Your task to perform on an android device: turn on priority inbox in the gmail app Image 0: 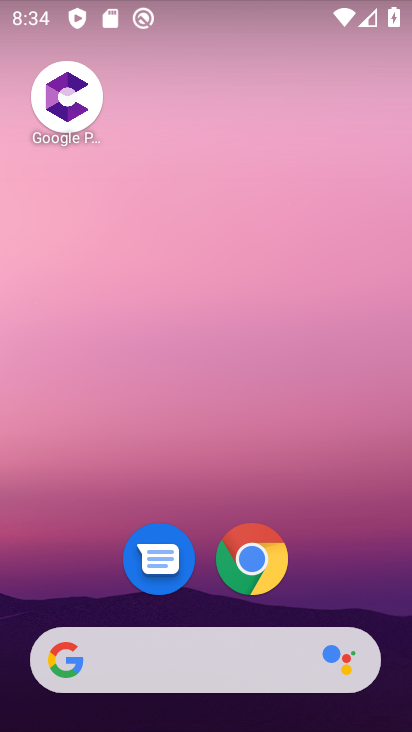
Step 0: drag from (318, 578) to (332, 208)
Your task to perform on an android device: turn on priority inbox in the gmail app Image 1: 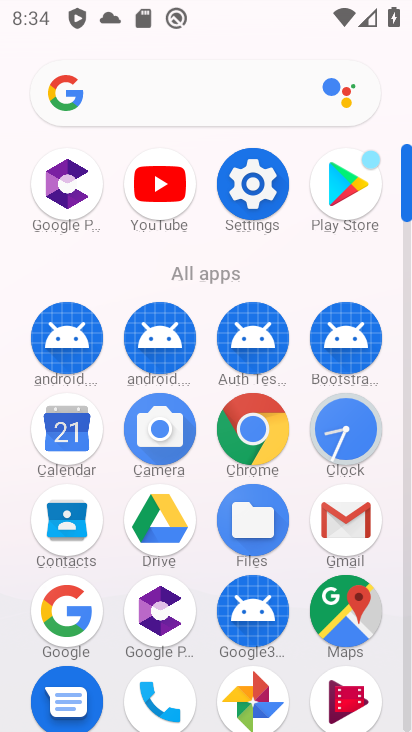
Step 1: click (346, 529)
Your task to perform on an android device: turn on priority inbox in the gmail app Image 2: 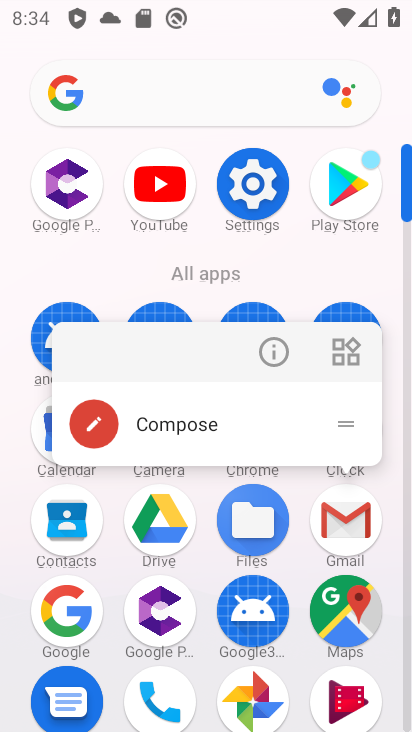
Step 2: click (348, 525)
Your task to perform on an android device: turn on priority inbox in the gmail app Image 3: 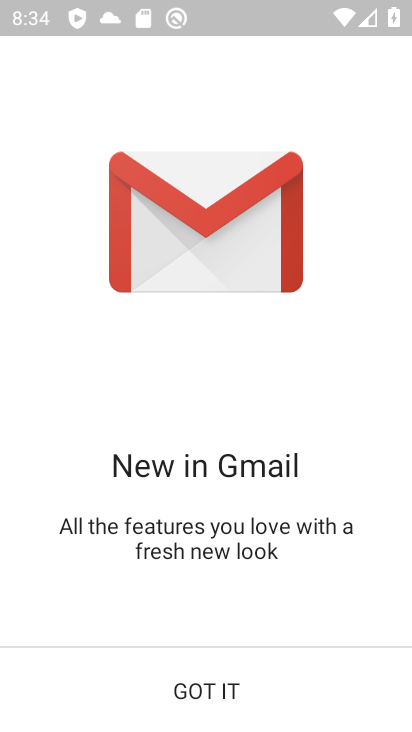
Step 3: click (175, 689)
Your task to perform on an android device: turn on priority inbox in the gmail app Image 4: 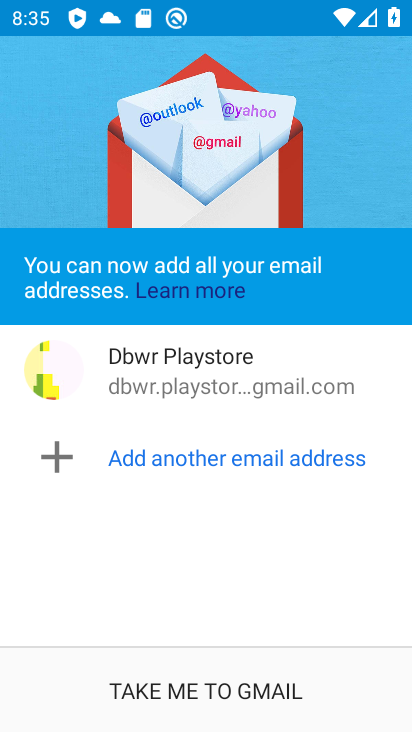
Step 4: click (180, 692)
Your task to perform on an android device: turn on priority inbox in the gmail app Image 5: 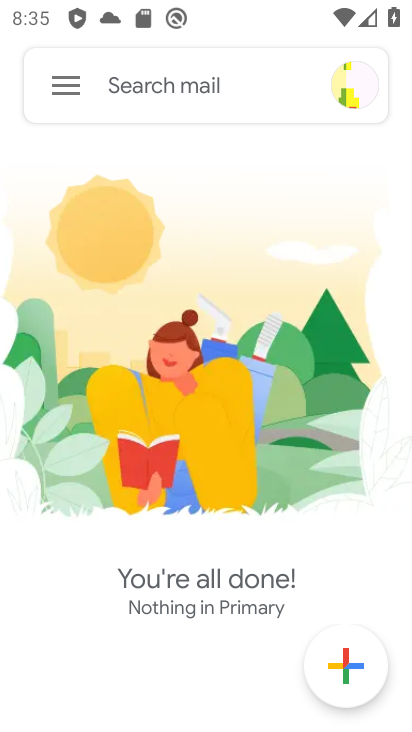
Step 5: click (63, 97)
Your task to perform on an android device: turn on priority inbox in the gmail app Image 6: 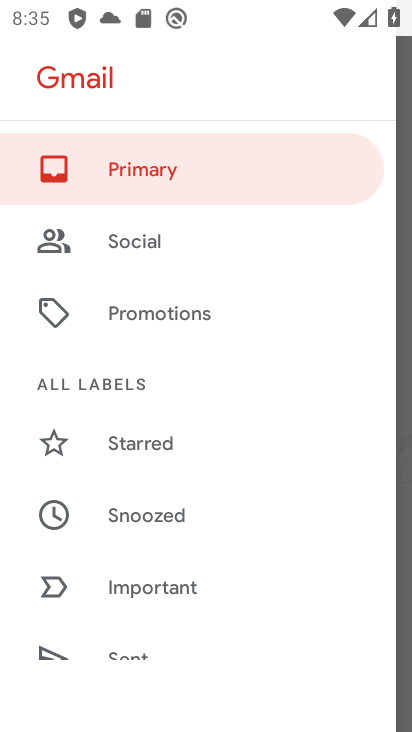
Step 6: drag from (167, 560) to (176, 231)
Your task to perform on an android device: turn on priority inbox in the gmail app Image 7: 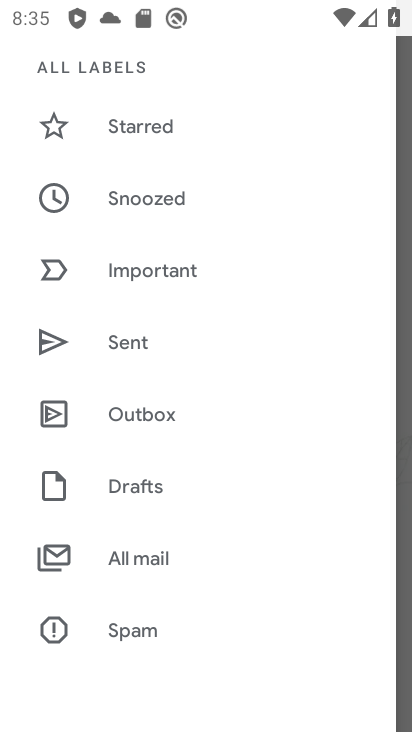
Step 7: drag from (200, 589) to (204, 371)
Your task to perform on an android device: turn on priority inbox in the gmail app Image 8: 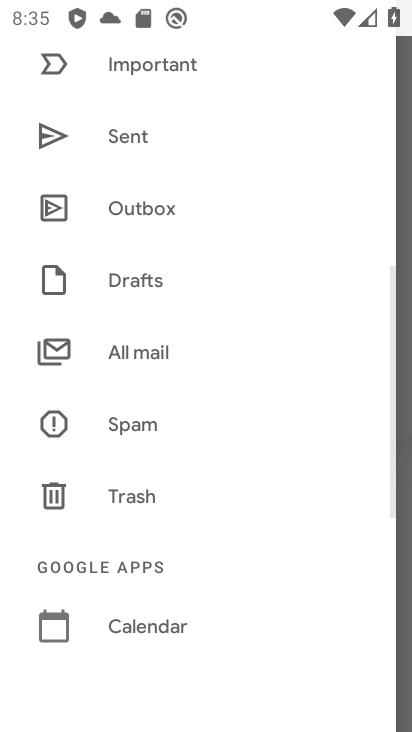
Step 8: drag from (216, 592) to (217, 357)
Your task to perform on an android device: turn on priority inbox in the gmail app Image 9: 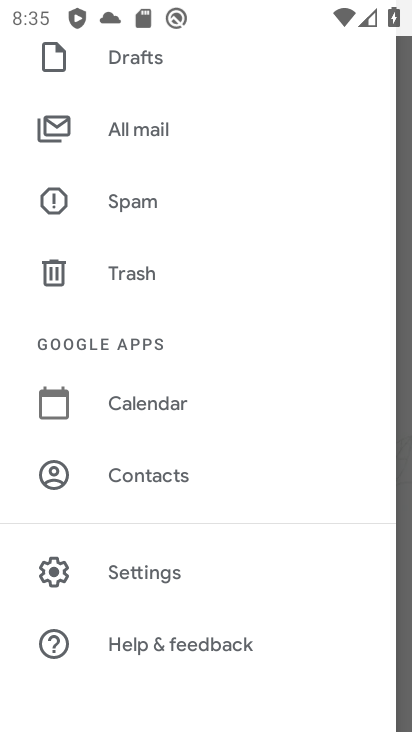
Step 9: click (166, 575)
Your task to perform on an android device: turn on priority inbox in the gmail app Image 10: 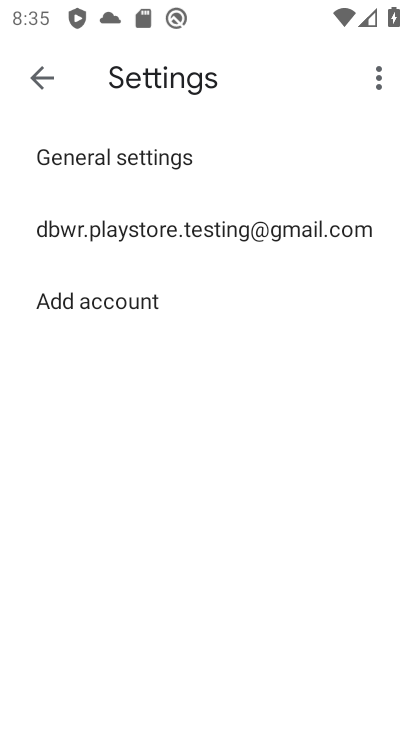
Step 10: click (154, 237)
Your task to perform on an android device: turn on priority inbox in the gmail app Image 11: 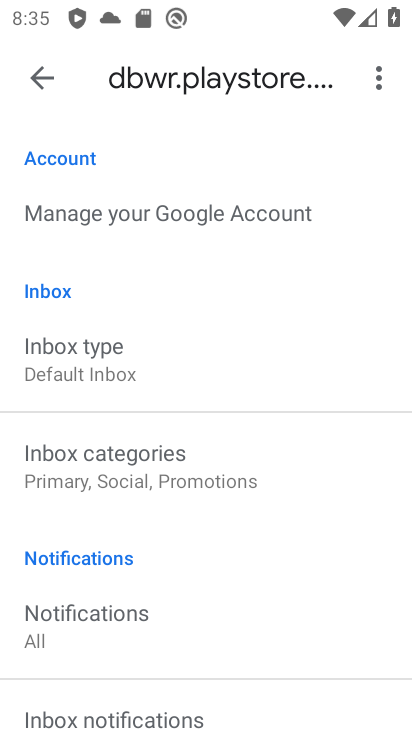
Step 11: click (111, 370)
Your task to perform on an android device: turn on priority inbox in the gmail app Image 12: 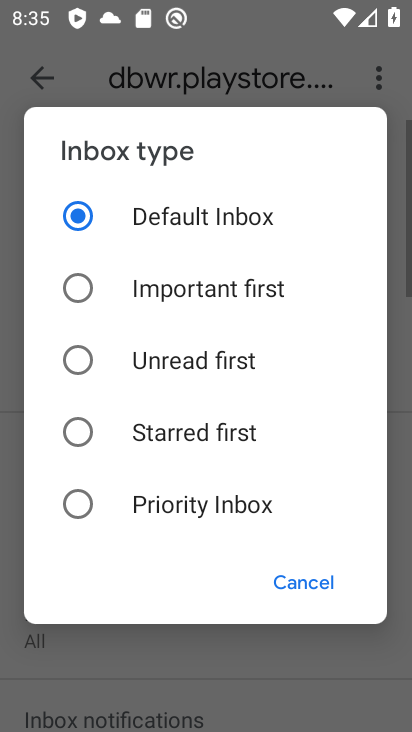
Step 12: click (195, 497)
Your task to perform on an android device: turn on priority inbox in the gmail app Image 13: 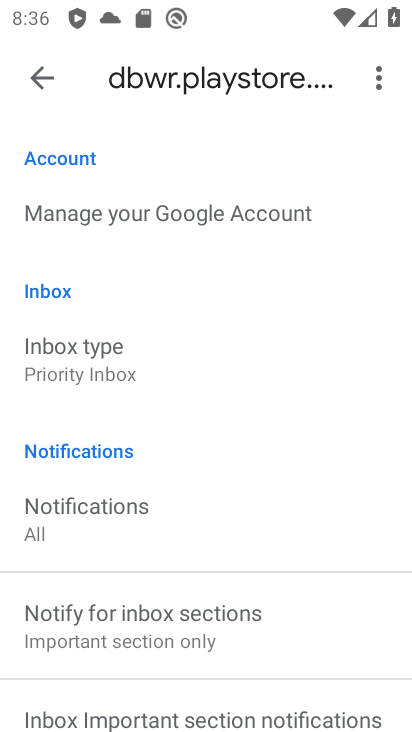
Step 13: task complete